Your task to perform on an android device: open wifi settings Image 0: 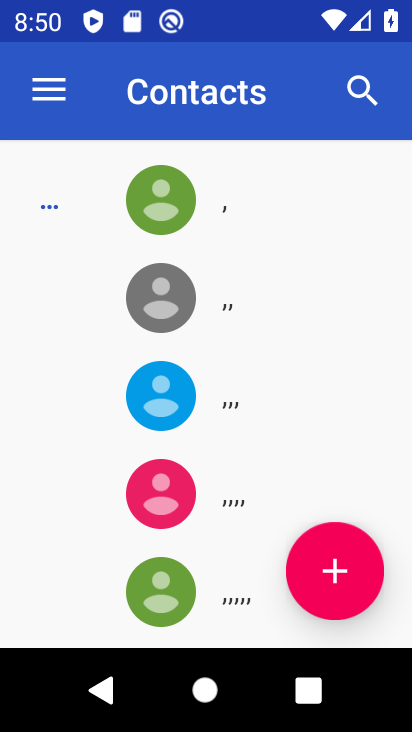
Step 0: press home button
Your task to perform on an android device: open wifi settings Image 1: 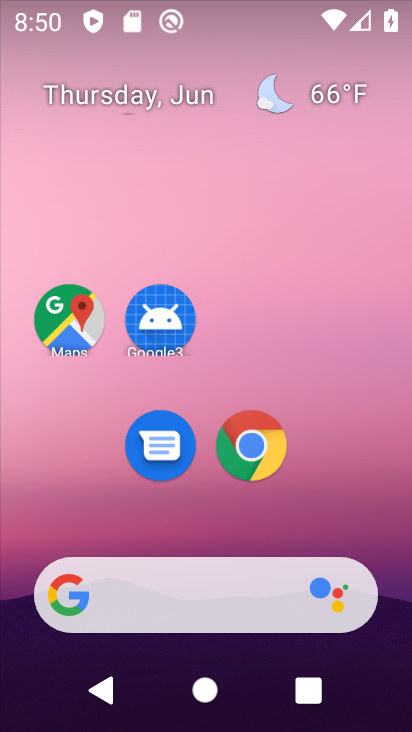
Step 1: drag from (346, 490) to (293, 25)
Your task to perform on an android device: open wifi settings Image 2: 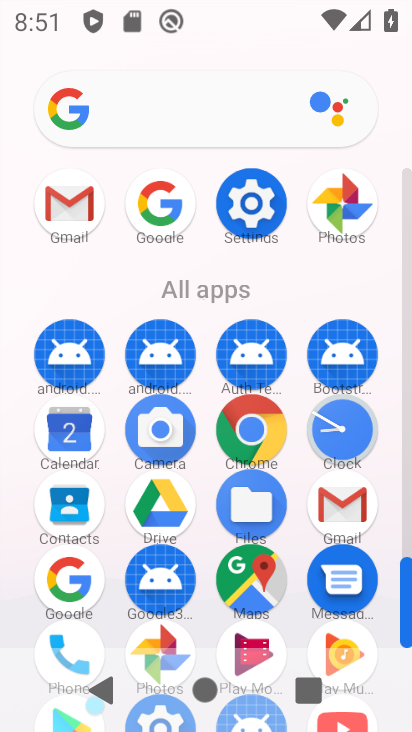
Step 2: click (240, 208)
Your task to perform on an android device: open wifi settings Image 3: 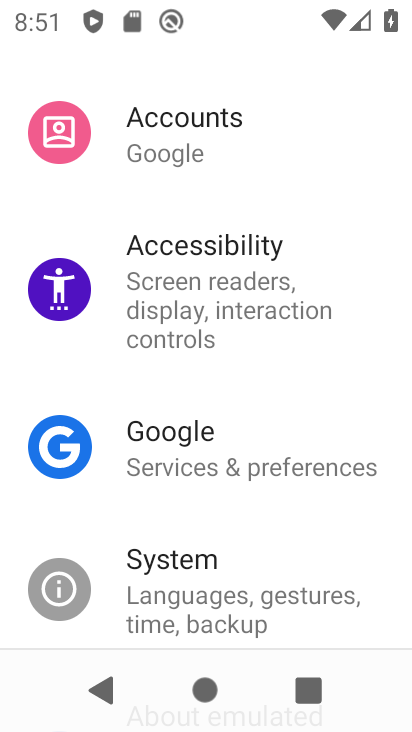
Step 3: drag from (254, 174) to (228, 627)
Your task to perform on an android device: open wifi settings Image 4: 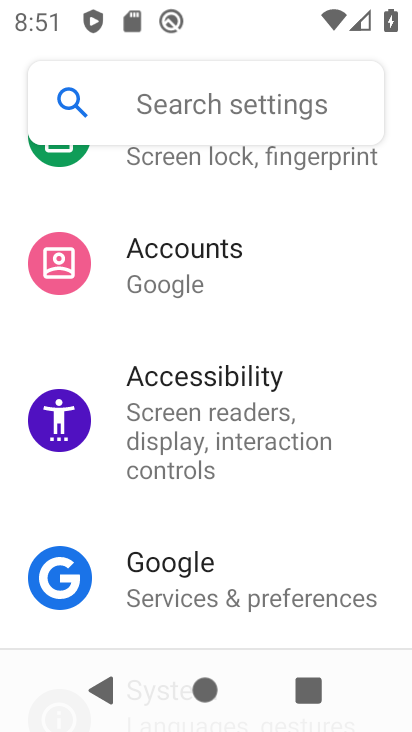
Step 4: drag from (259, 270) to (235, 619)
Your task to perform on an android device: open wifi settings Image 5: 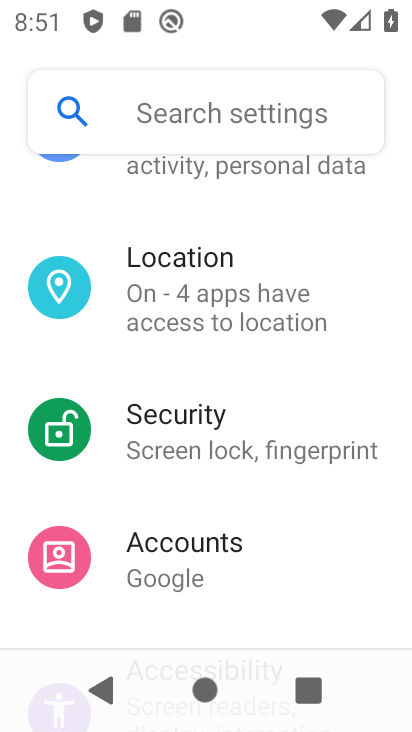
Step 5: drag from (262, 186) to (265, 570)
Your task to perform on an android device: open wifi settings Image 6: 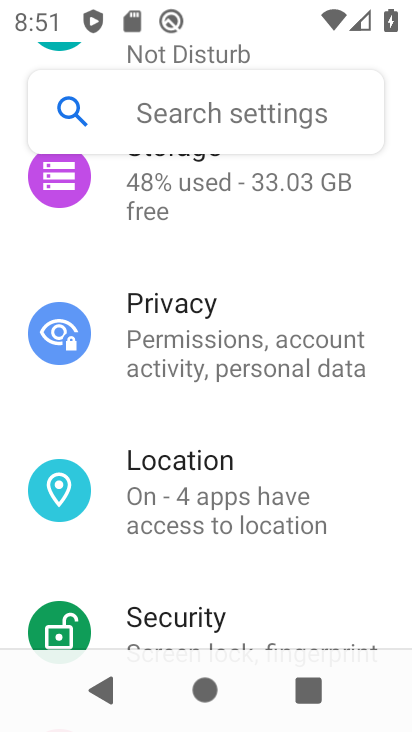
Step 6: drag from (302, 194) to (310, 620)
Your task to perform on an android device: open wifi settings Image 7: 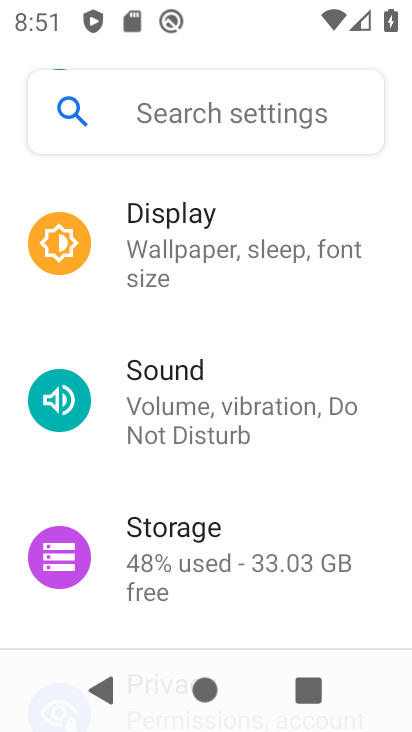
Step 7: drag from (310, 294) to (283, 668)
Your task to perform on an android device: open wifi settings Image 8: 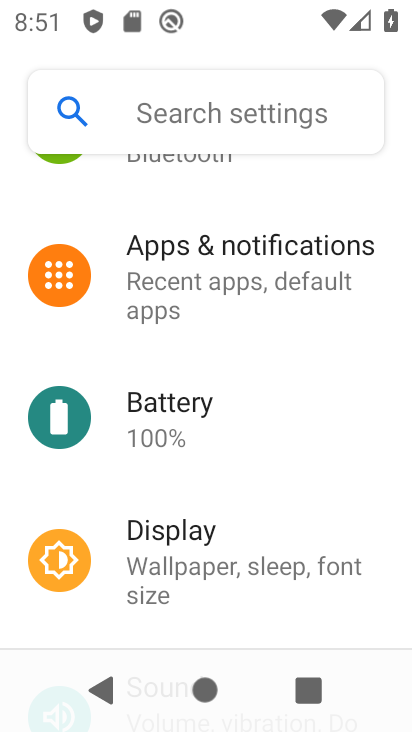
Step 8: drag from (323, 224) to (262, 593)
Your task to perform on an android device: open wifi settings Image 9: 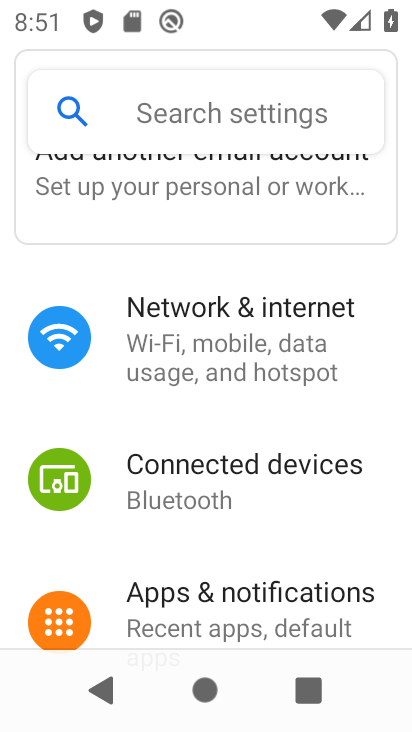
Step 9: click (253, 354)
Your task to perform on an android device: open wifi settings Image 10: 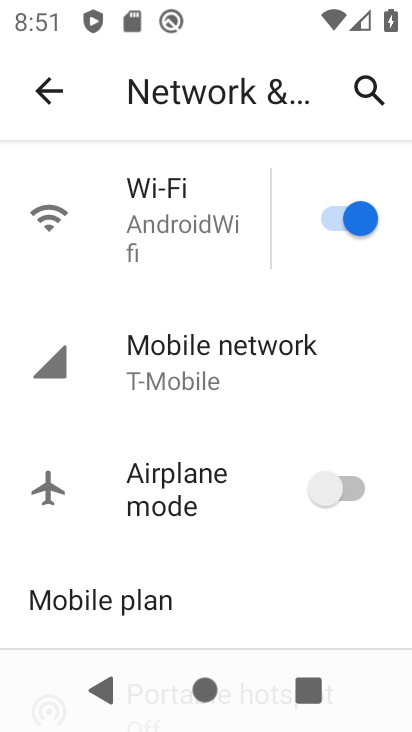
Step 10: click (156, 183)
Your task to perform on an android device: open wifi settings Image 11: 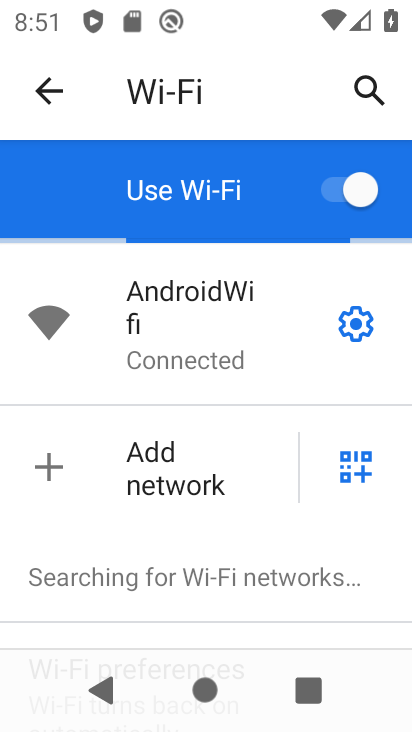
Step 11: task complete